Your task to perform on an android device: What is the recent news? Image 0: 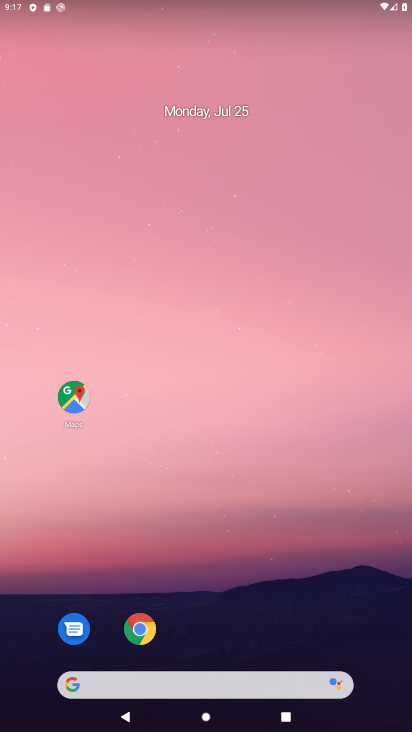
Step 0: drag from (267, 583) to (262, 43)
Your task to perform on an android device: What is the recent news? Image 1: 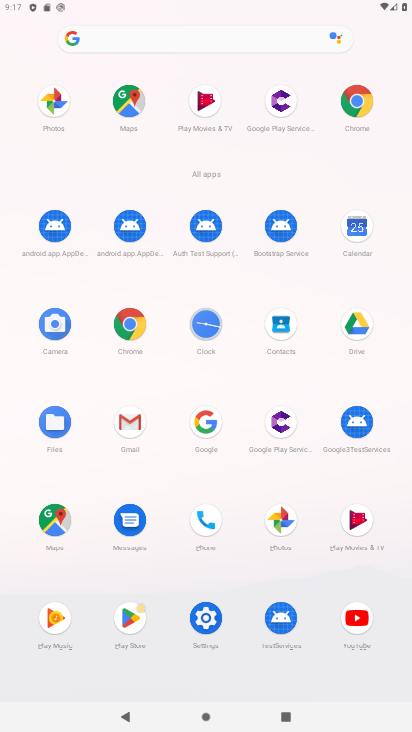
Step 1: click (360, 98)
Your task to perform on an android device: What is the recent news? Image 2: 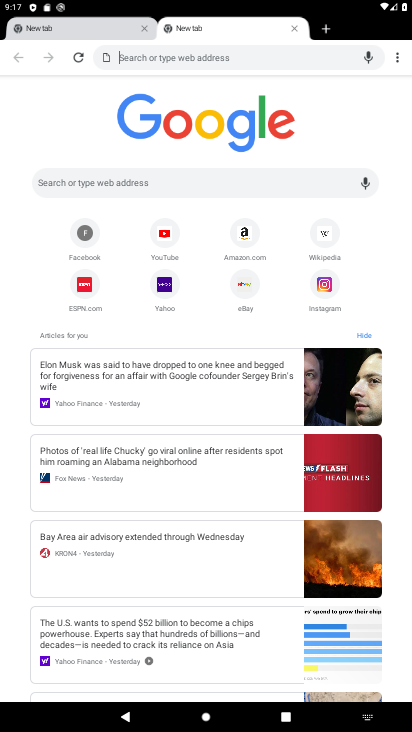
Step 2: click (183, 178)
Your task to perform on an android device: What is the recent news? Image 3: 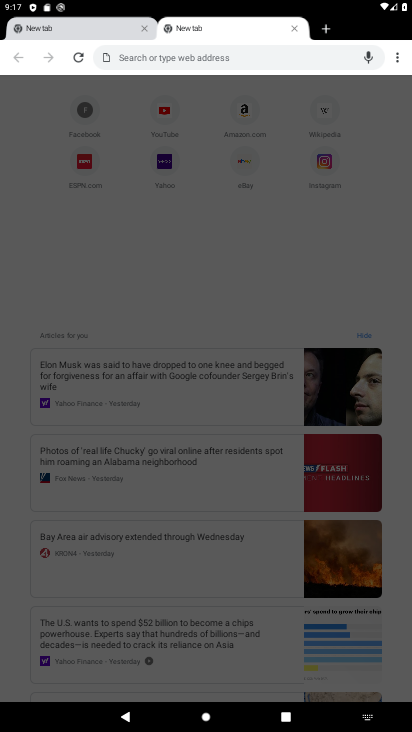
Step 3: type "news"
Your task to perform on an android device: What is the recent news? Image 4: 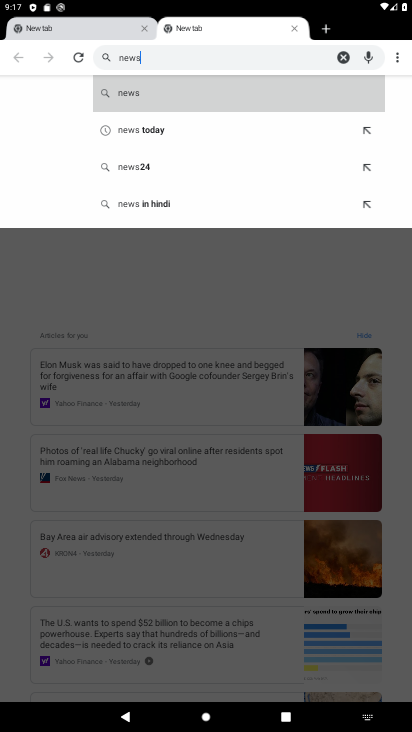
Step 4: click (165, 90)
Your task to perform on an android device: What is the recent news? Image 5: 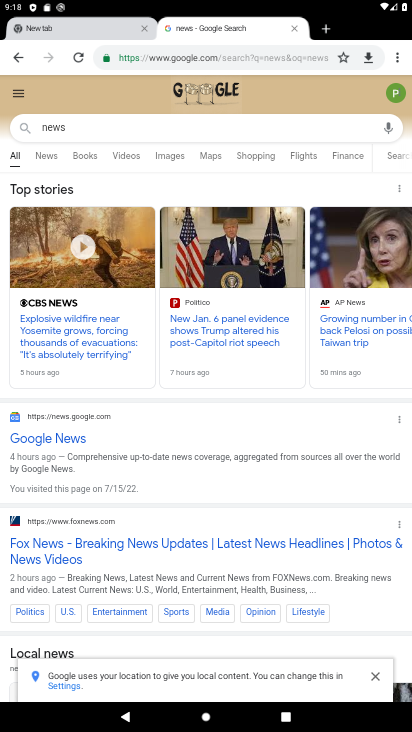
Step 5: click (56, 439)
Your task to perform on an android device: What is the recent news? Image 6: 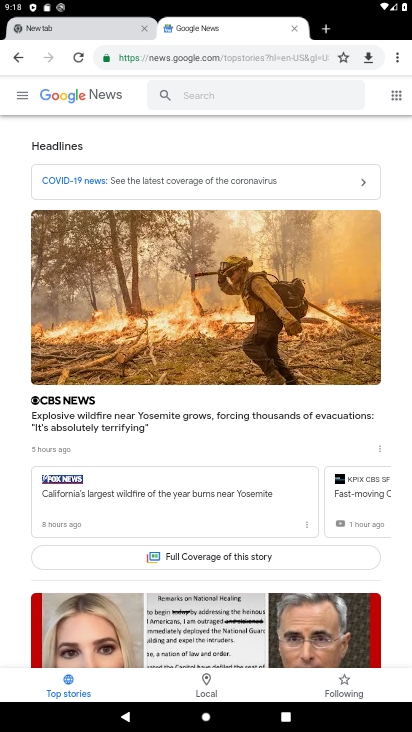
Step 6: task complete